Your task to perform on an android device: see creations saved in the google photos Image 0: 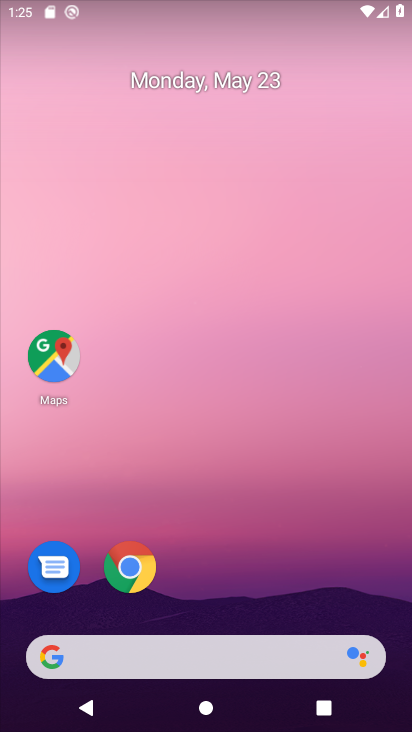
Step 0: drag from (278, 576) to (257, 282)
Your task to perform on an android device: see creations saved in the google photos Image 1: 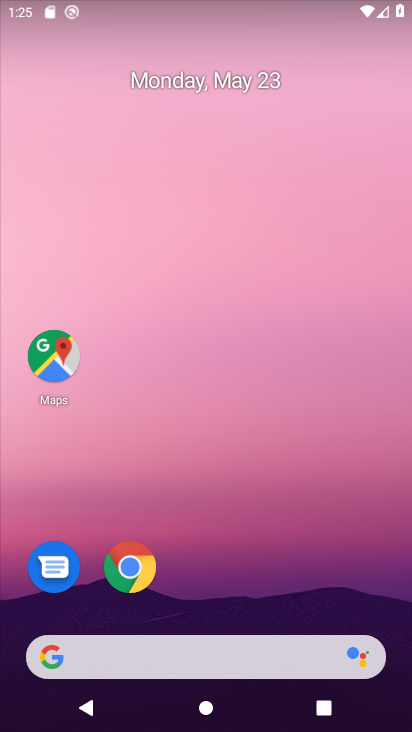
Step 1: drag from (266, 590) to (251, 167)
Your task to perform on an android device: see creations saved in the google photos Image 2: 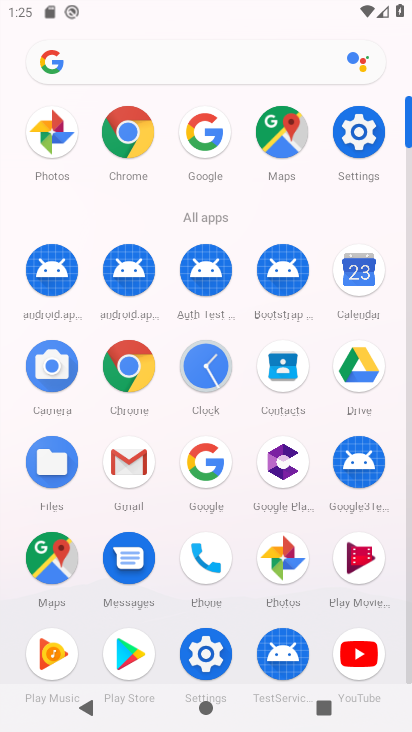
Step 2: click (284, 570)
Your task to perform on an android device: see creations saved in the google photos Image 3: 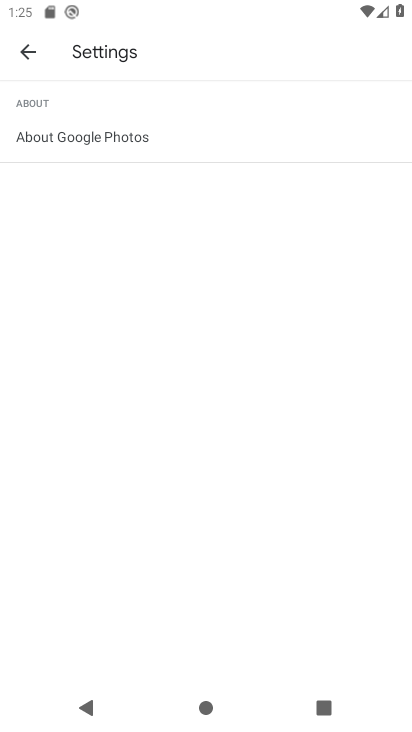
Step 3: click (31, 57)
Your task to perform on an android device: see creations saved in the google photos Image 4: 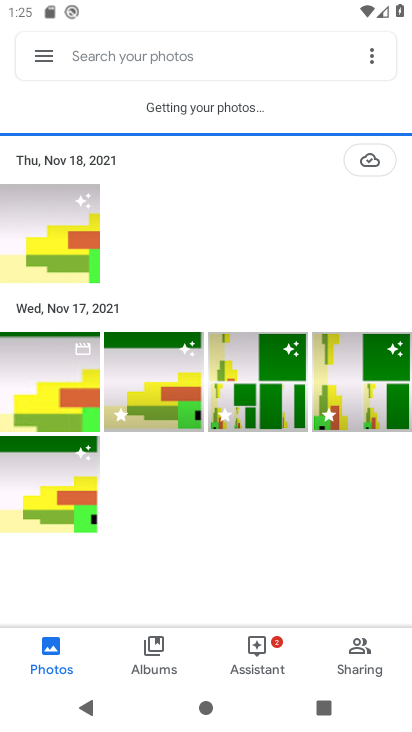
Step 4: click (32, 54)
Your task to perform on an android device: see creations saved in the google photos Image 5: 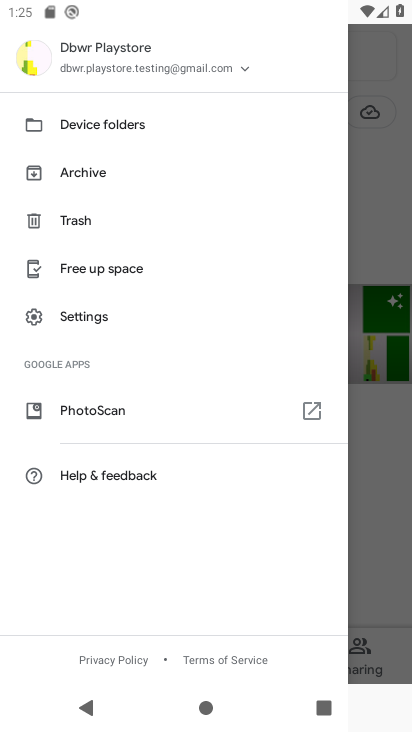
Step 5: click (405, 243)
Your task to perform on an android device: see creations saved in the google photos Image 6: 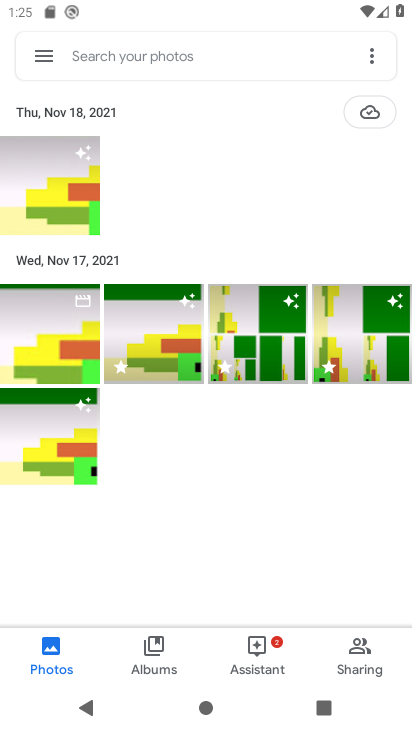
Step 6: click (162, 66)
Your task to perform on an android device: see creations saved in the google photos Image 7: 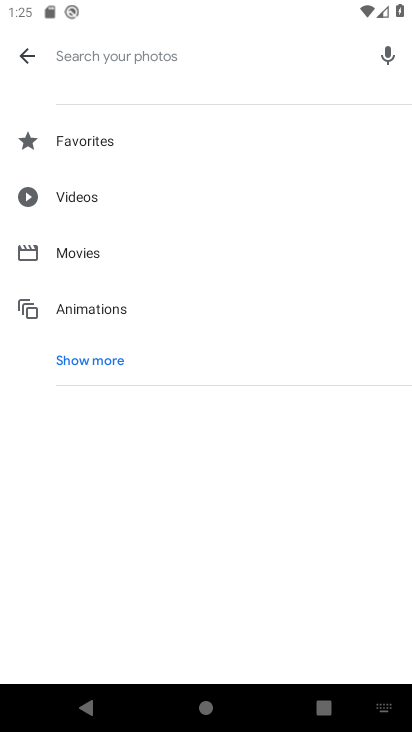
Step 7: click (104, 365)
Your task to perform on an android device: see creations saved in the google photos Image 8: 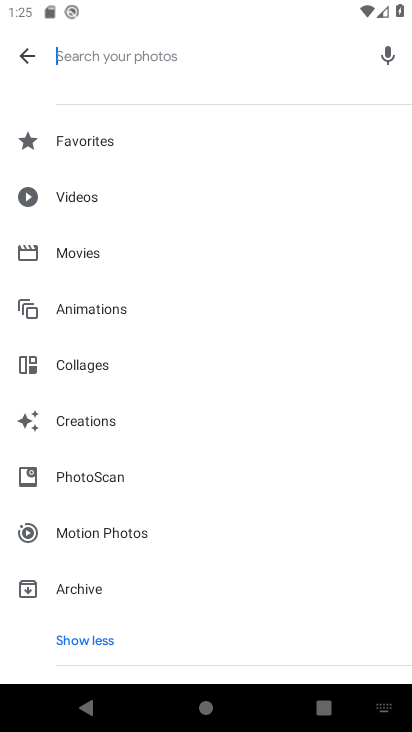
Step 8: click (111, 429)
Your task to perform on an android device: see creations saved in the google photos Image 9: 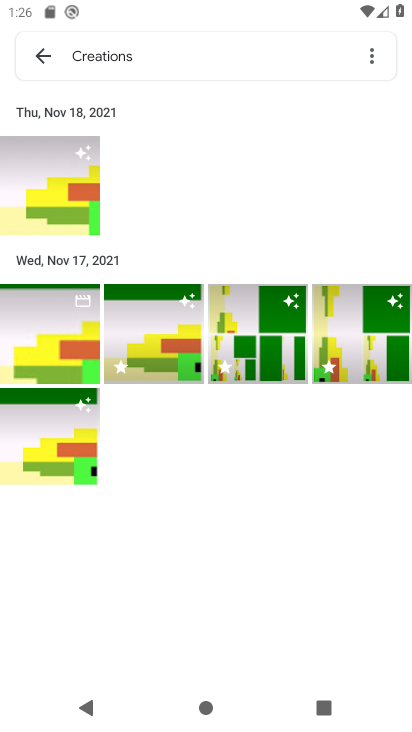
Step 9: task complete